Your task to perform on an android device: turn on improve location accuracy Image 0: 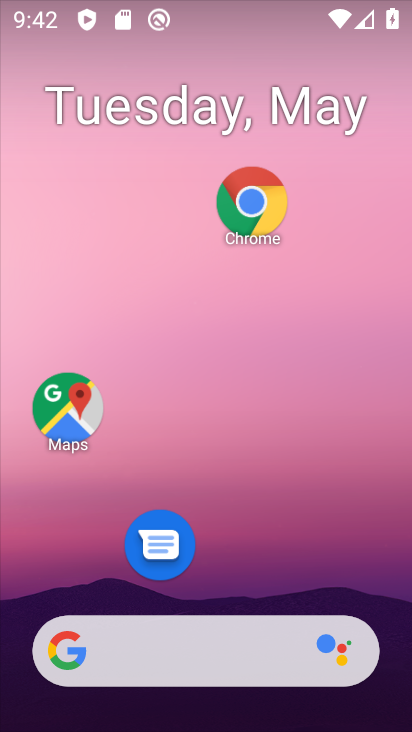
Step 0: drag from (355, 583) to (333, 94)
Your task to perform on an android device: turn on improve location accuracy Image 1: 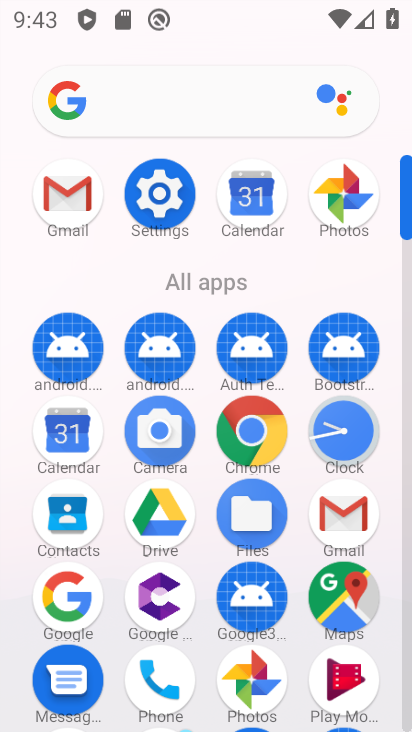
Step 1: click (162, 211)
Your task to perform on an android device: turn on improve location accuracy Image 2: 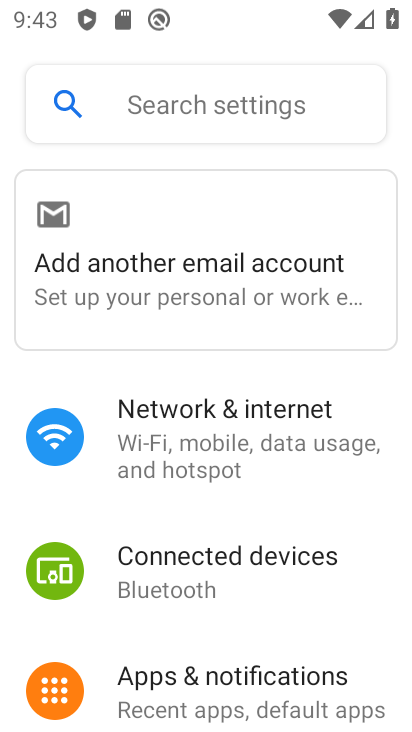
Step 2: drag from (262, 628) to (240, 110)
Your task to perform on an android device: turn on improve location accuracy Image 3: 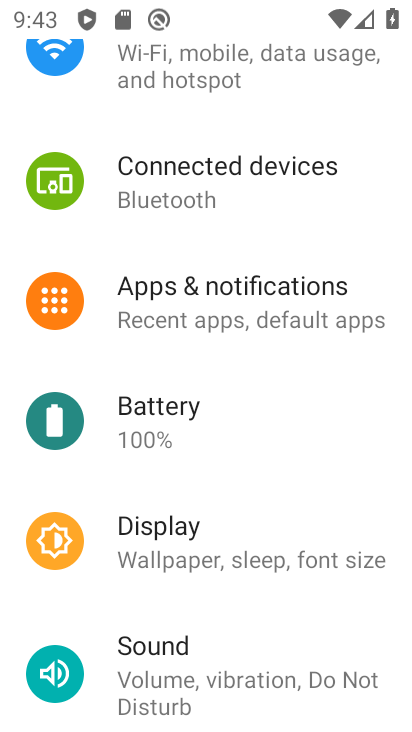
Step 3: drag from (325, 615) to (256, 148)
Your task to perform on an android device: turn on improve location accuracy Image 4: 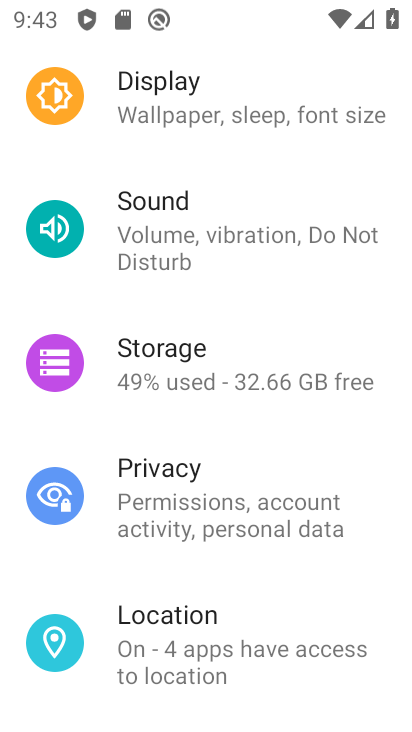
Step 4: click (267, 632)
Your task to perform on an android device: turn on improve location accuracy Image 5: 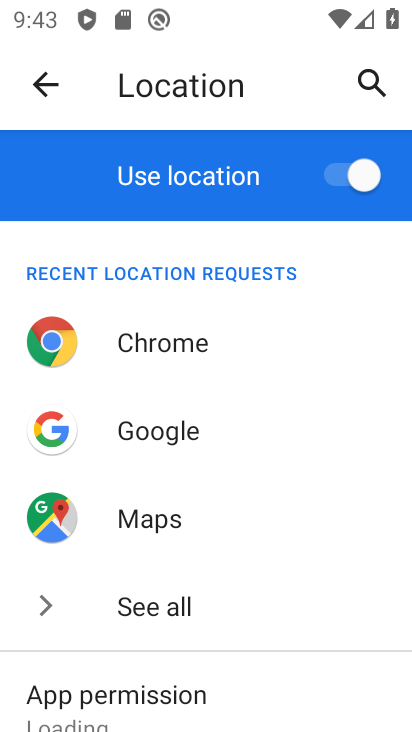
Step 5: drag from (287, 684) to (275, 397)
Your task to perform on an android device: turn on improve location accuracy Image 6: 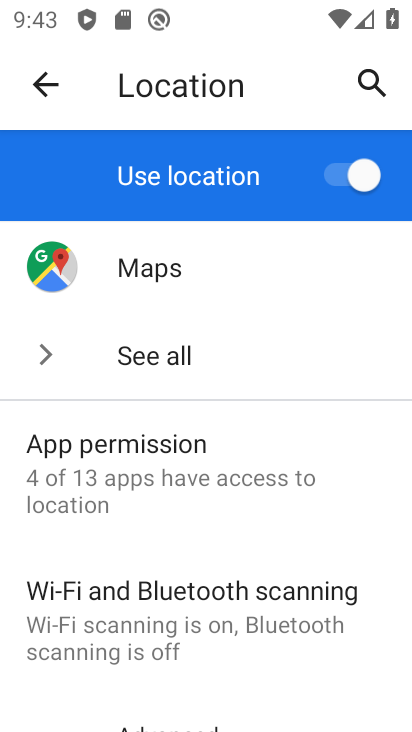
Step 6: drag from (301, 616) to (283, 321)
Your task to perform on an android device: turn on improve location accuracy Image 7: 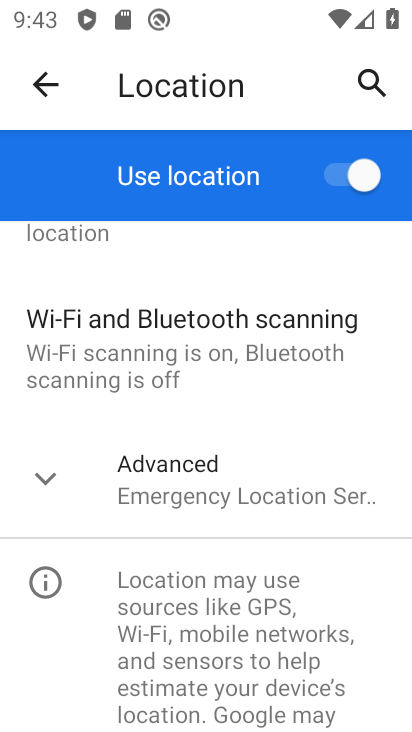
Step 7: click (311, 459)
Your task to perform on an android device: turn on improve location accuracy Image 8: 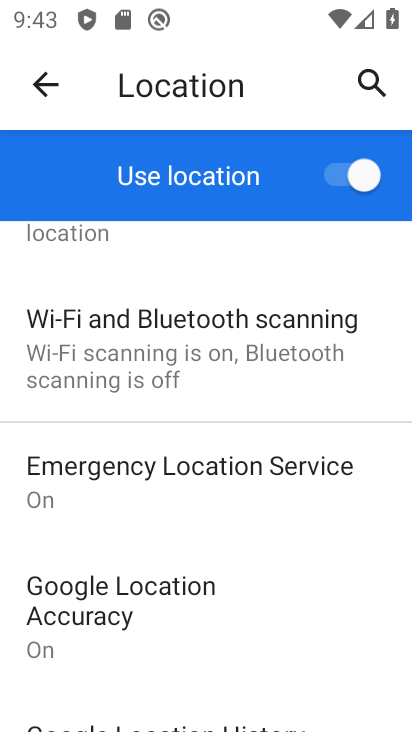
Step 8: drag from (313, 584) to (275, 267)
Your task to perform on an android device: turn on improve location accuracy Image 9: 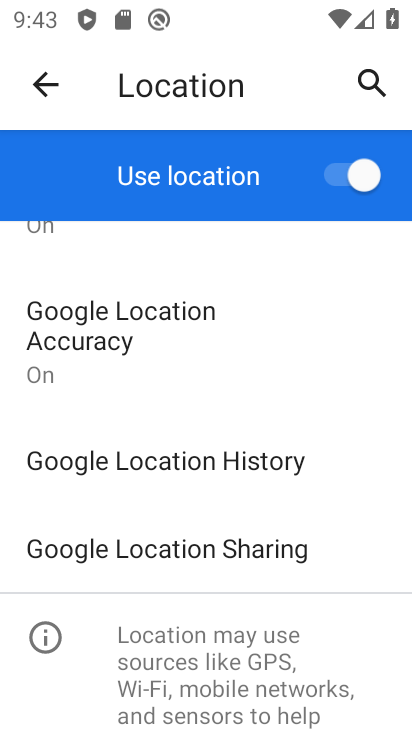
Step 9: click (278, 306)
Your task to perform on an android device: turn on improve location accuracy Image 10: 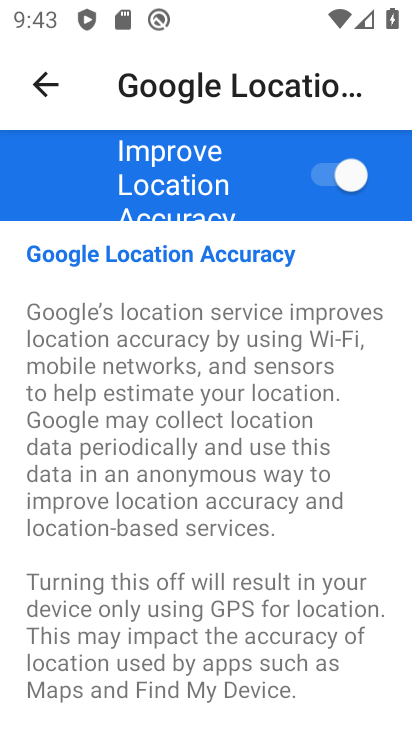
Step 10: task complete